Your task to perform on an android device: Open Chrome and go to settings Image 0: 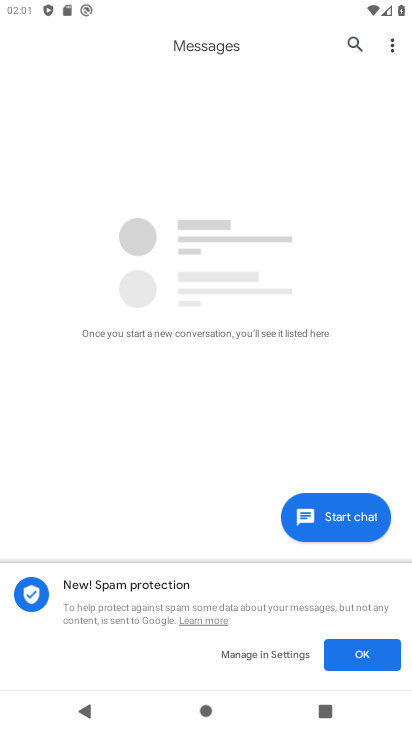
Step 0: press home button
Your task to perform on an android device: Open Chrome and go to settings Image 1: 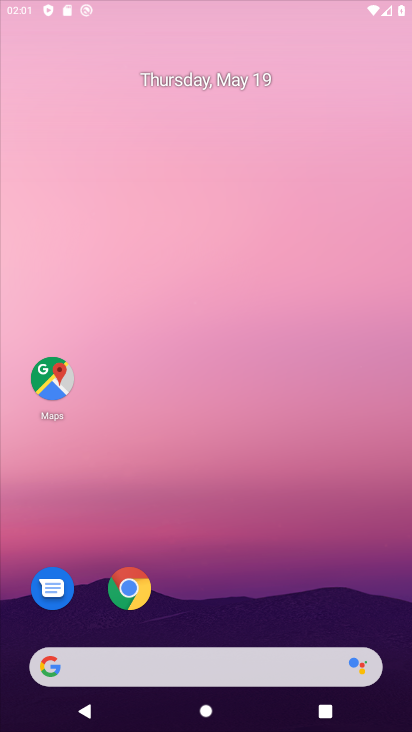
Step 1: click (216, 592)
Your task to perform on an android device: Open Chrome and go to settings Image 2: 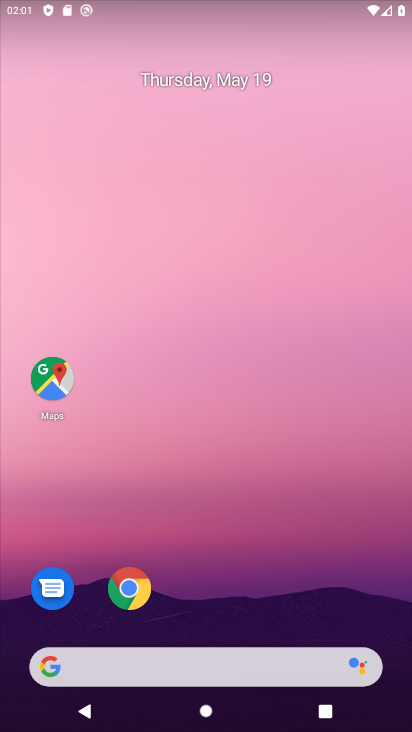
Step 2: click (135, 589)
Your task to perform on an android device: Open Chrome and go to settings Image 3: 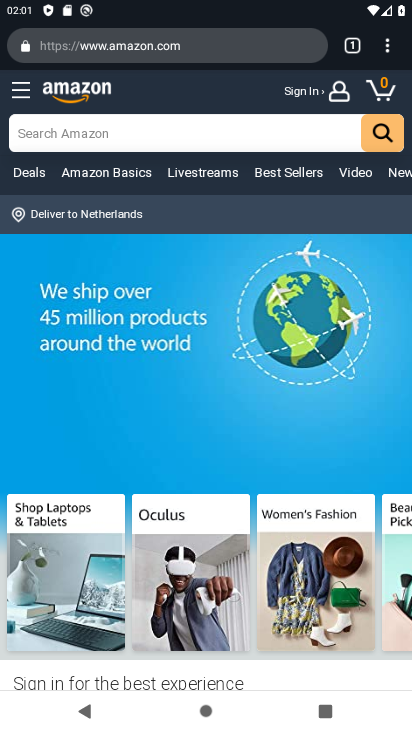
Step 3: click (381, 51)
Your task to perform on an android device: Open Chrome and go to settings Image 4: 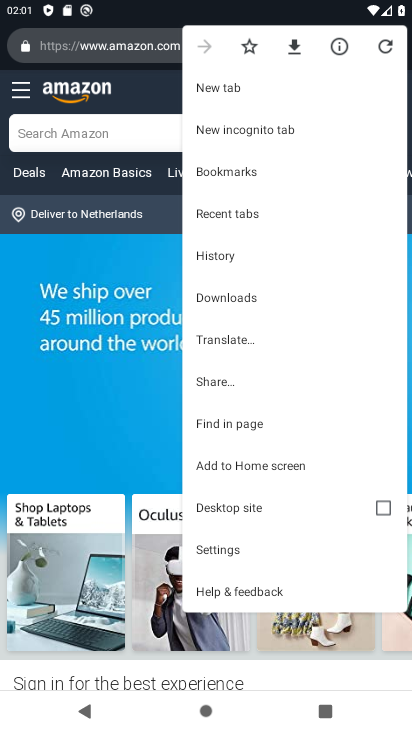
Step 4: click (242, 545)
Your task to perform on an android device: Open Chrome and go to settings Image 5: 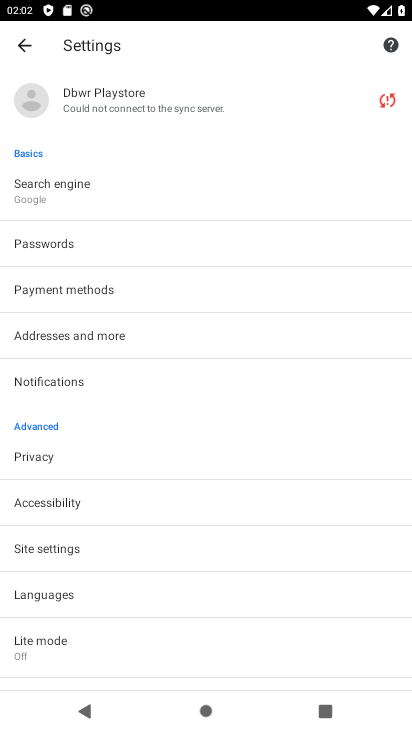
Step 5: task complete